Your task to perform on an android device: turn notification dots off Image 0: 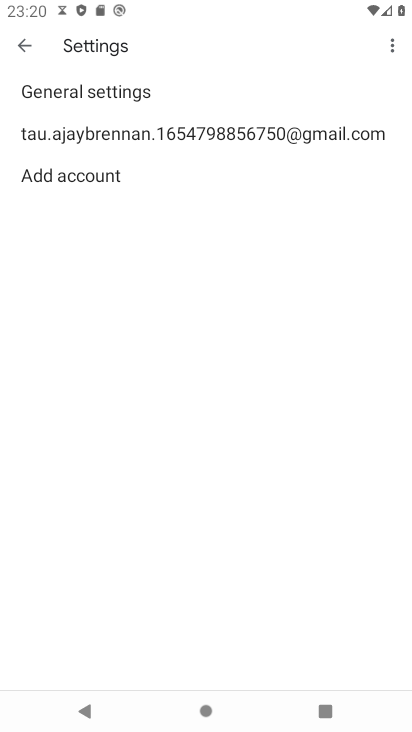
Step 0: press home button
Your task to perform on an android device: turn notification dots off Image 1: 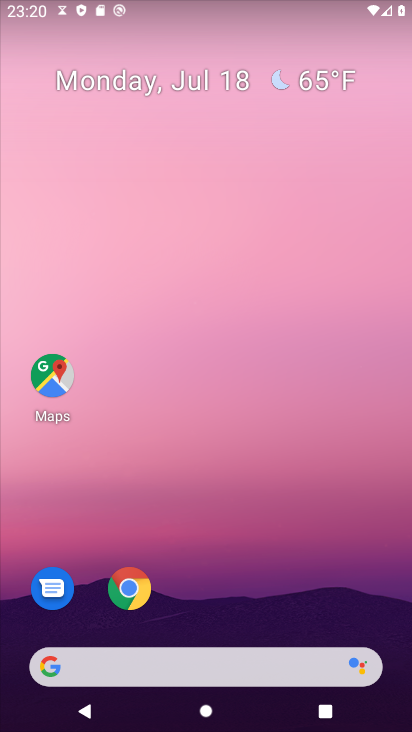
Step 1: drag from (312, 583) to (321, 89)
Your task to perform on an android device: turn notification dots off Image 2: 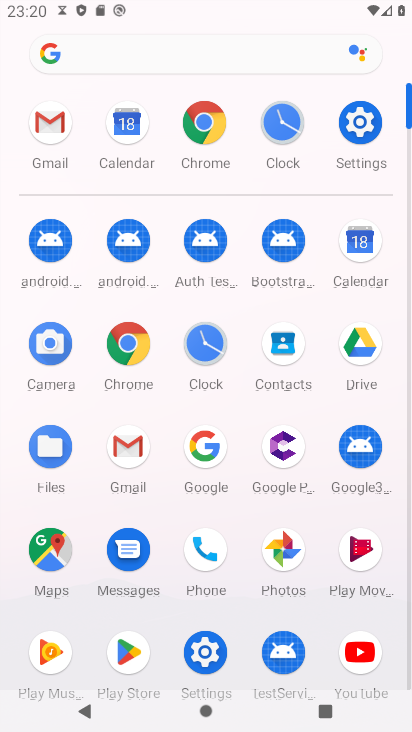
Step 2: click (61, 124)
Your task to perform on an android device: turn notification dots off Image 3: 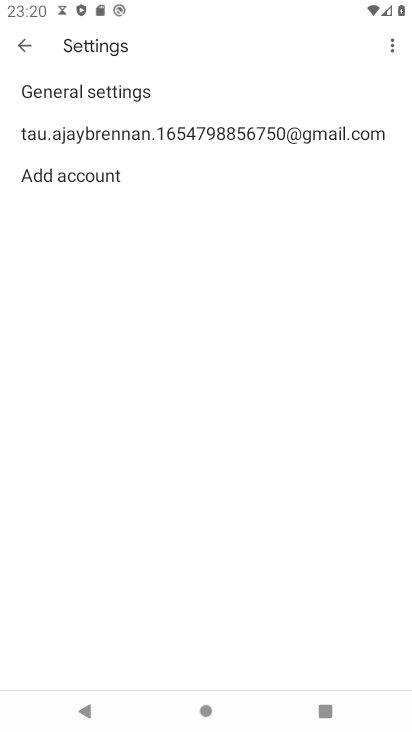
Step 3: click (22, 47)
Your task to perform on an android device: turn notification dots off Image 4: 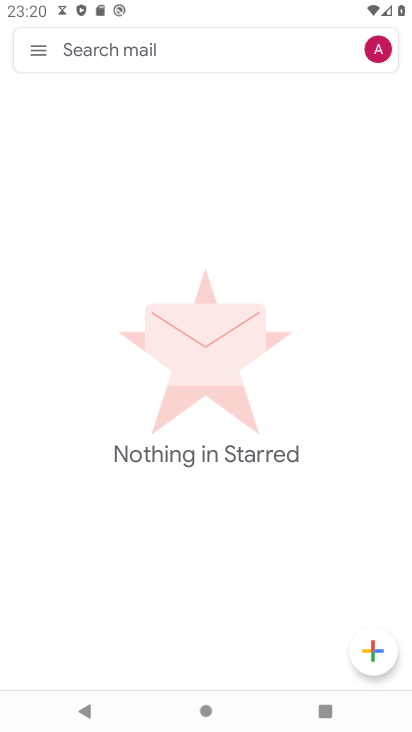
Step 4: press home button
Your task to perform on an android device: turn notification dots off Image 5: 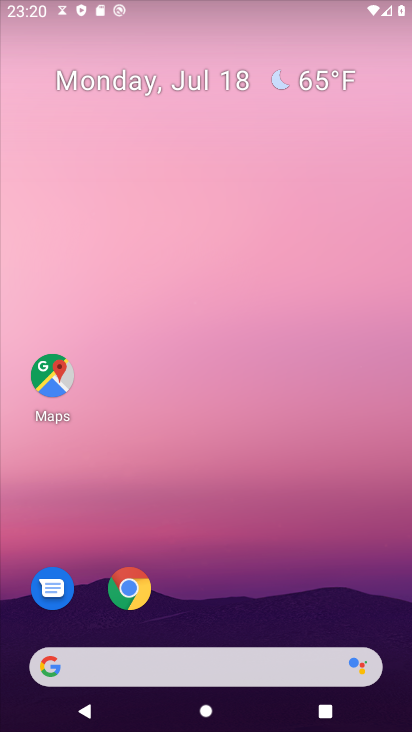
Step 5: drag from (295, 503) to (295, 29)
Your task to perform on an android device: turn notification dots off Image 6: 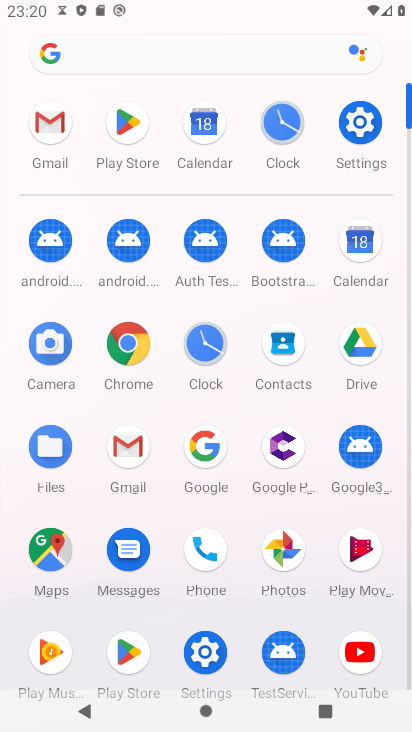
Step 6: click (360, 115)
Your task to perform on an android device: turn notification dots off Image 7: 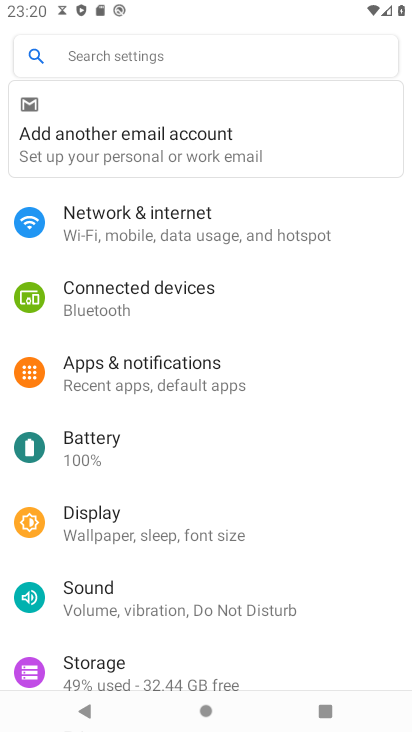
Step 7: click (147, 367)
Your task to perform on an android device: turn notification dots off Image 8: 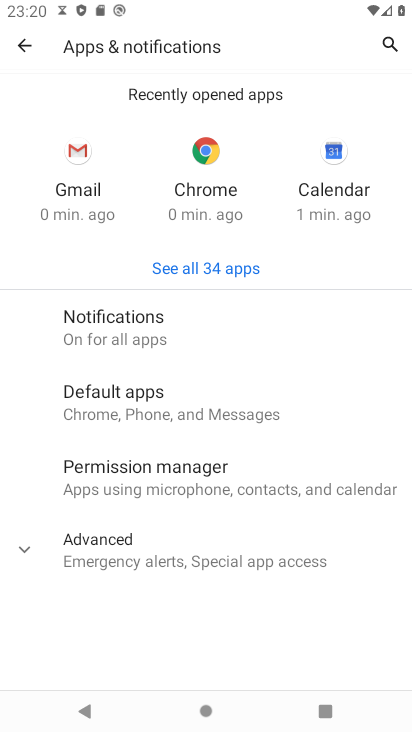
Step 8: click (130, 322)
Your task to perform on an android device: turn notification dots off Image 9: 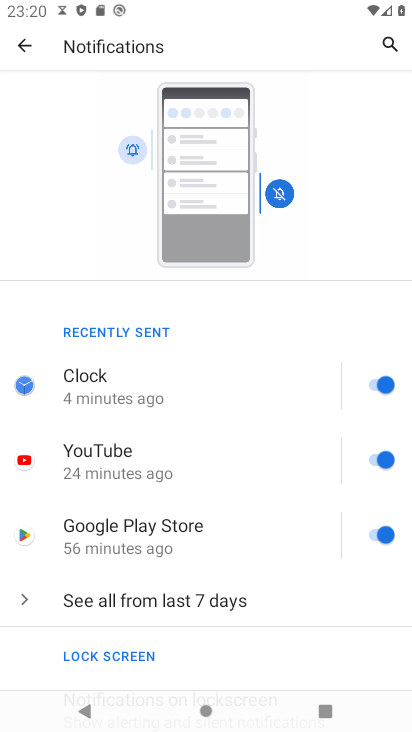
Step 9: drag from (278, 592) to (300, 177)
Your task to perform on an android device: turn notification dots off Image 10: 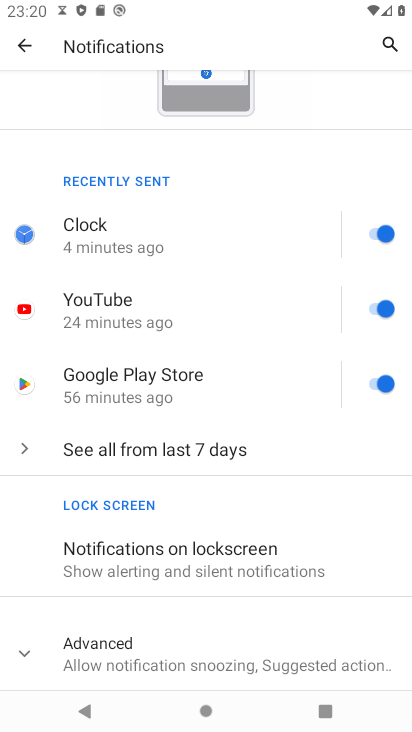
Step 10: click (16, 642)
Your task to perform on an android device: turn notification dots off Image 11: 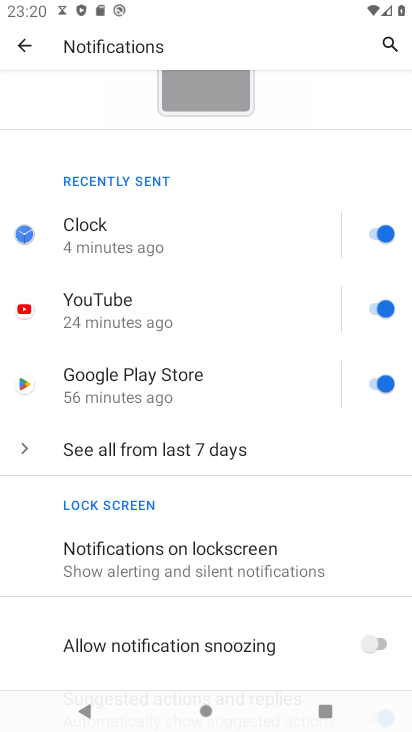
Step 11: drag from (154, 604) to (180, 248)
Your task to perform on an android device: turn notification dots off Image 12: 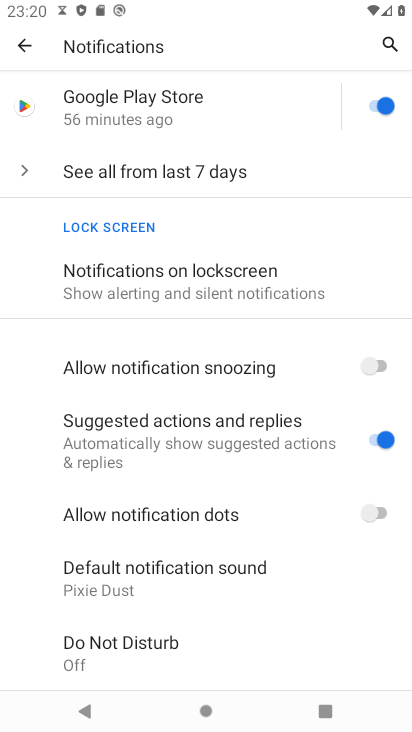
Step 12: click (383, 510)
Your task to perform on an android device: turn notification dots off Image 13: 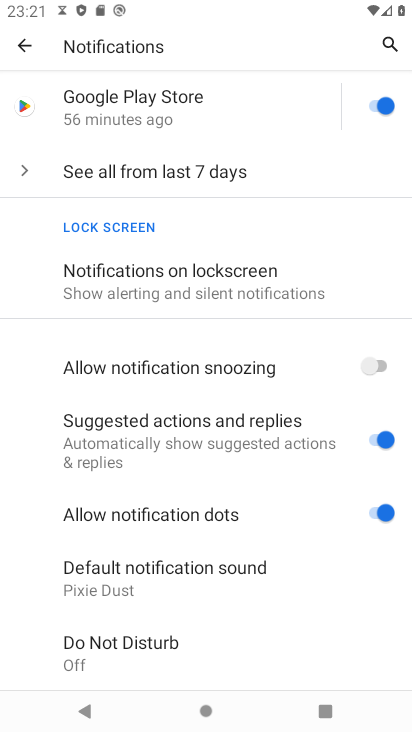
Step 13: task complete